Your task to perform on an android device: Go to Reddit.com Image 0: 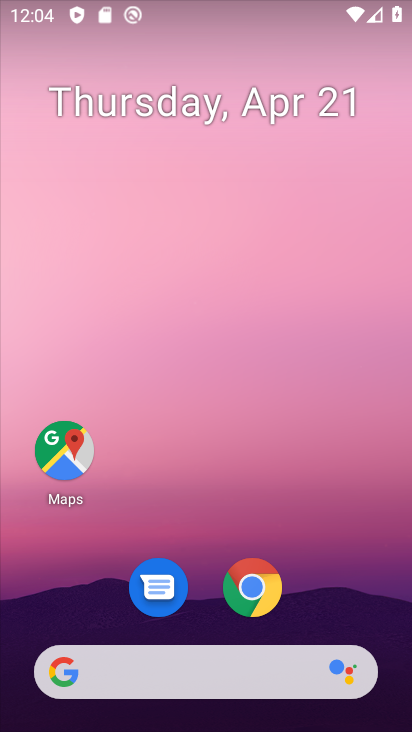
Step 0: click (240, 588)
Your task to perform on an android device: Go to Reddit.com Image 1: 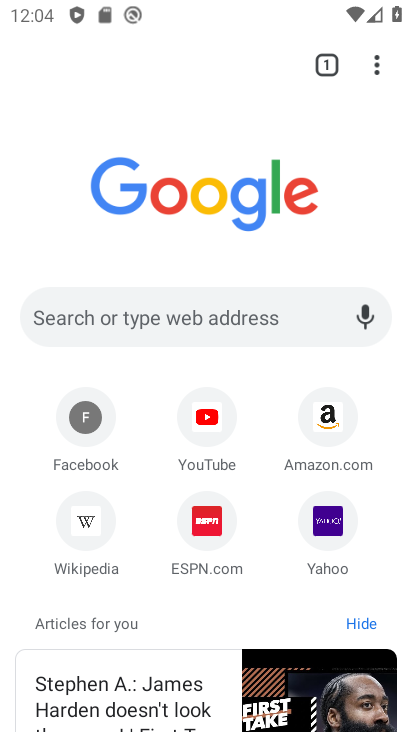
Step 1: click (242, 318)
Your task to perform on an android device: Go to Reddit.com Image 2: 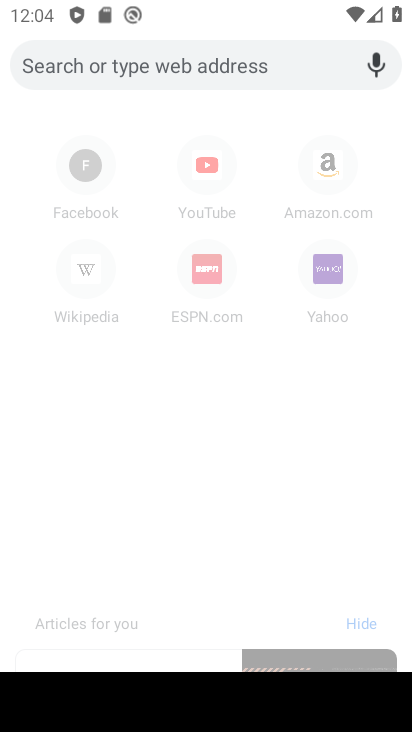
Step 2: type "Reddit.com"
Your task to perform on an android device: Go to Reddit.com Image 3: 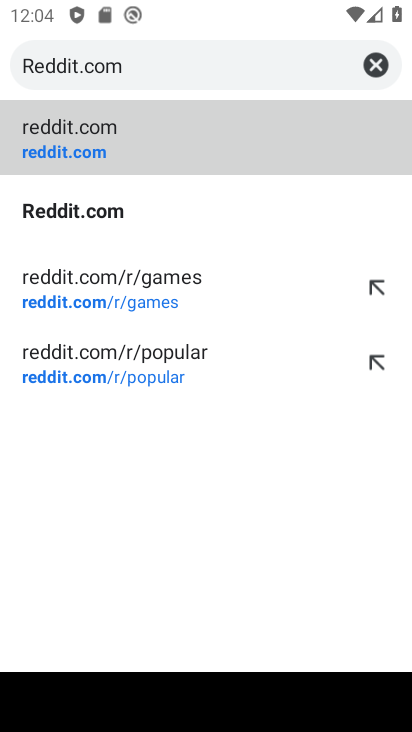
Step 3: click (136, 134)
Your task to perform on an android device: Go to Reddit.com Image 4: 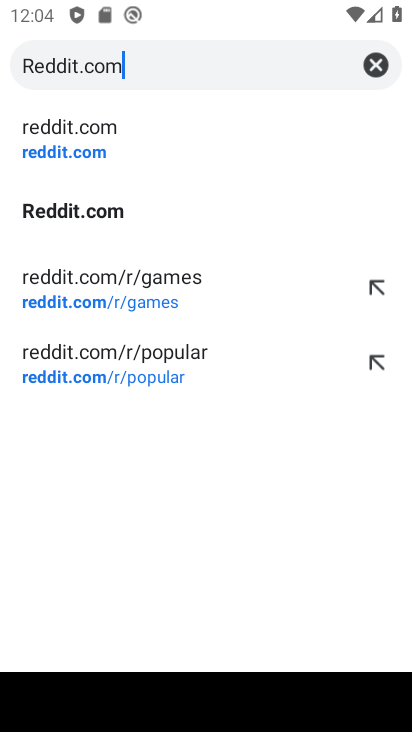
Step 4: click (73, 151)
Your task to perform on an android device: Go to Reddit.com Image 5: 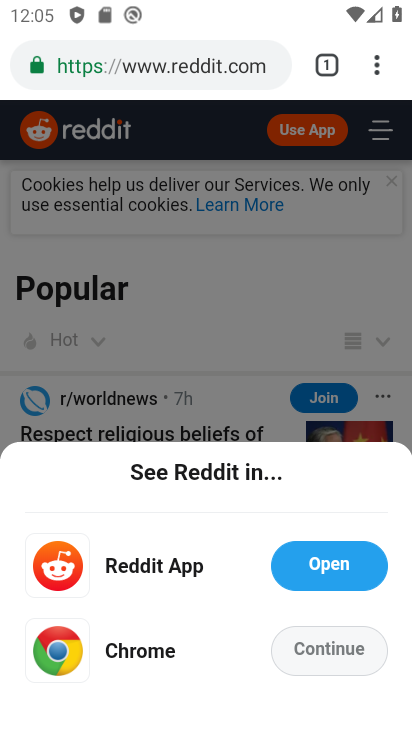
Step 5: click (344, 651)
Your task to perform on an android device: Go to Reddit.com Image 6: 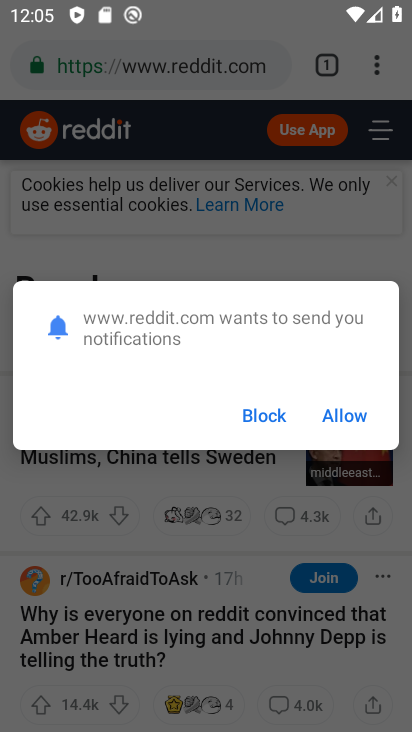
Step 6: click (270, 417)
Your task to perform on an android device: Go to Reddit.com Image 7: 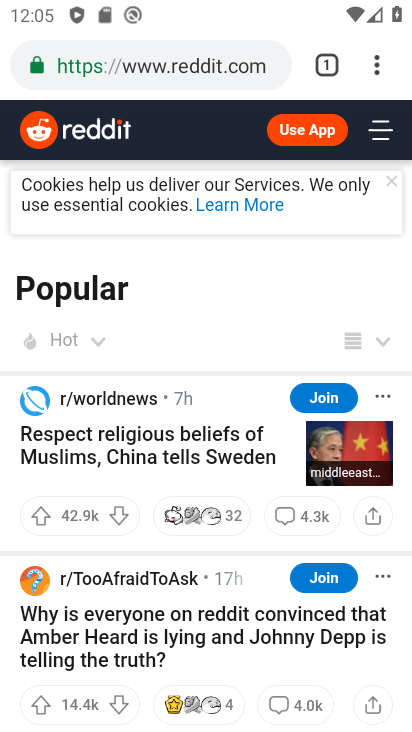
Step 7: task complete